Your task to perform on an android device: Show me recent news Image 0: 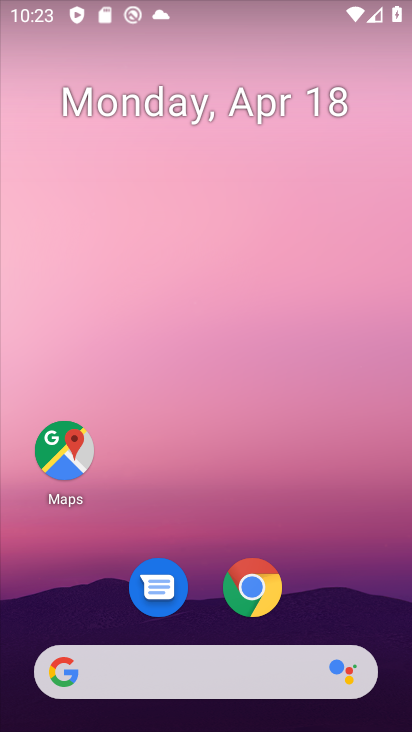
Step 0: drag from (372, 473) to (373, 158)
Your task to perform on an android device: Show me recent news Image 1: 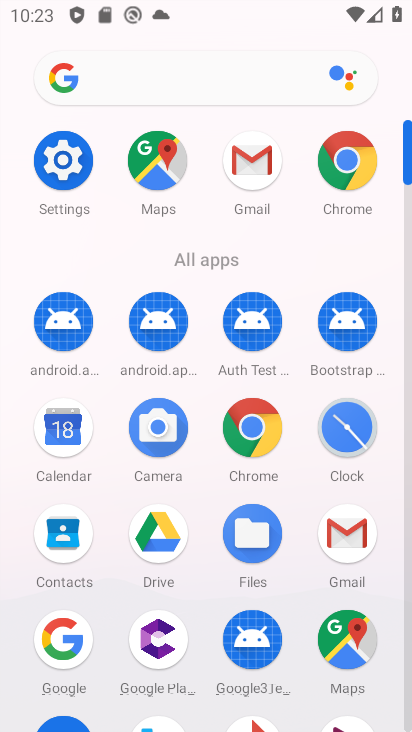
Step 1: click (259, 416)
Your task to perform on an android device: Show me recent news Image 2: 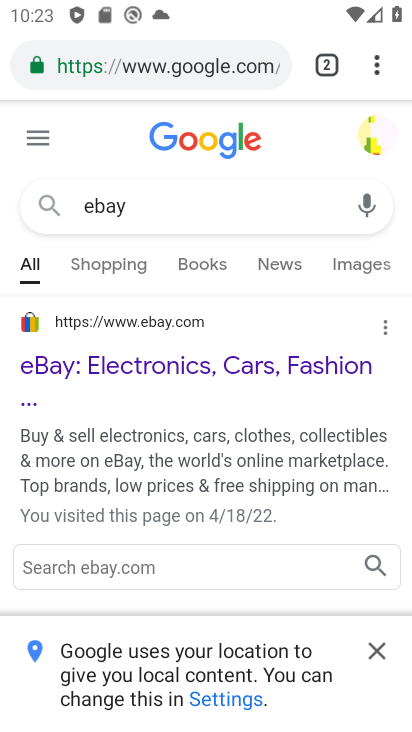
Step 2: click (326, 63)
Your task to perform on an android device: Show me recent news Image 3: 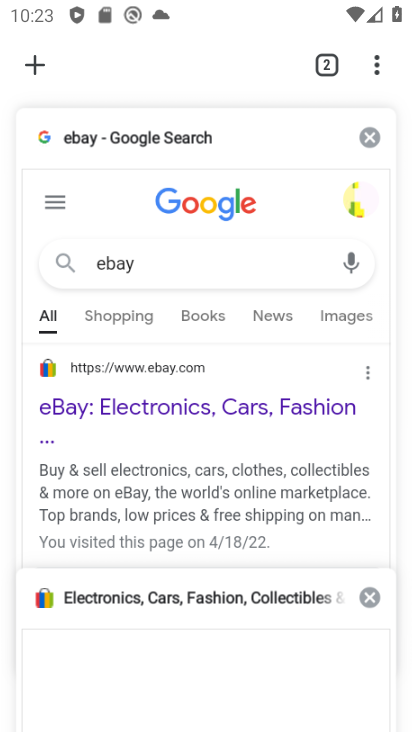
Step 3: click (27, 67)
Your task to perform on an android device: Show me recent news Image 4: 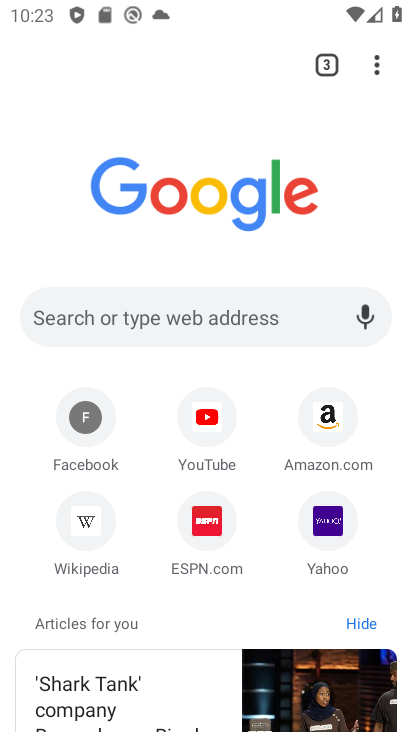
Step 4: click (211, 310)
Your task to perform on an android device: Show me recent news Image 5: 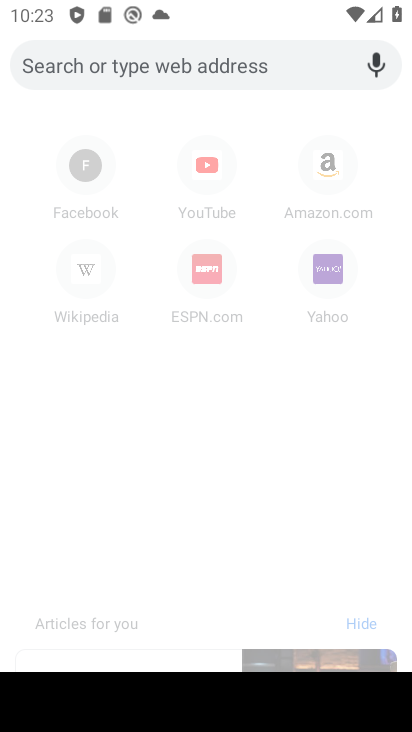
Step 5: type "recent news"
Your task to perform on an android device: Show me recent news Image 6: 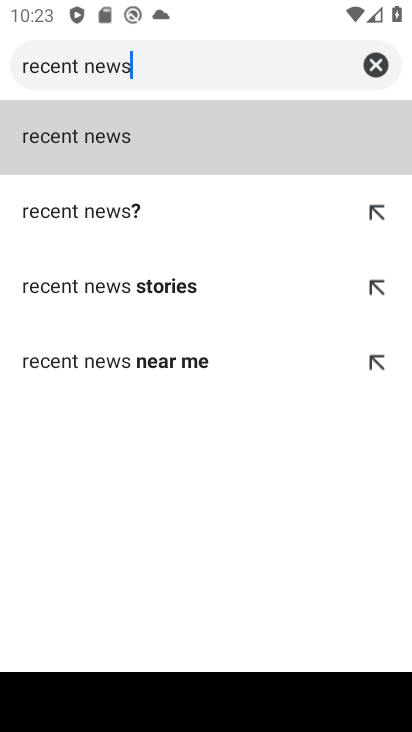
Step 6: click (134, 157)
Your task to perform on an android device: Show me recent news Image 7: 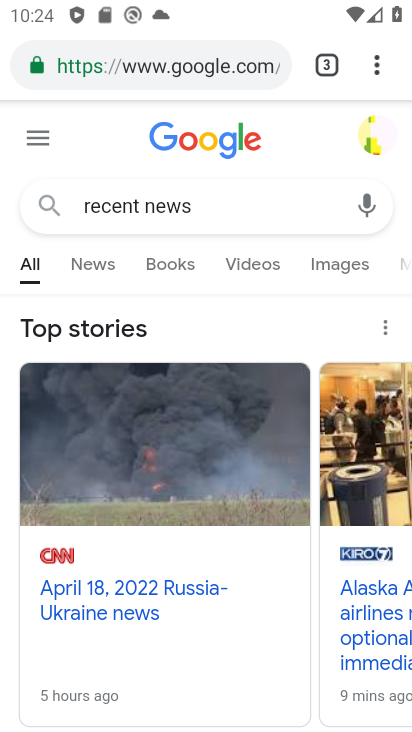
Step 7: task complete